Your task to perform on an android device: change the clock style Image 0: 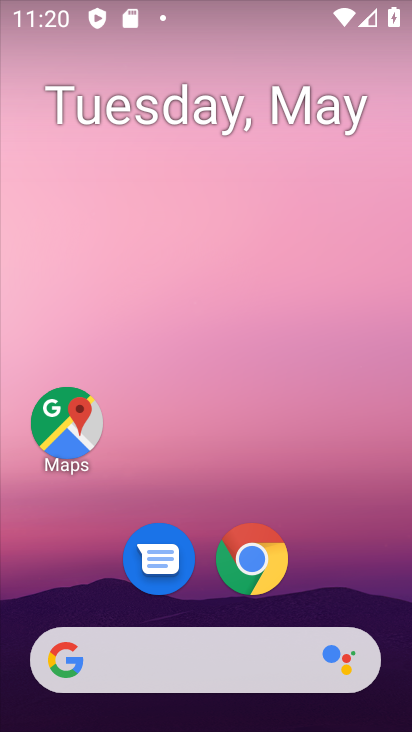
Step 0: drag from (75, 597) to (202, 192)
Your task to perform on an android device: change the clock style Image 1: 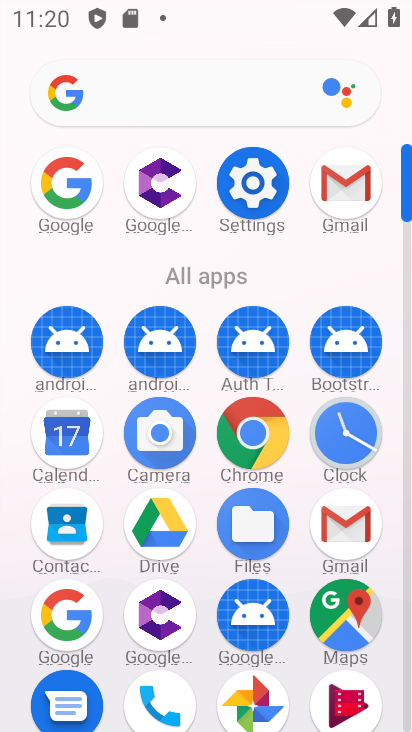
Step 1: click (367, 447)
Your task to perform on an android device: change the clock style Image 2: 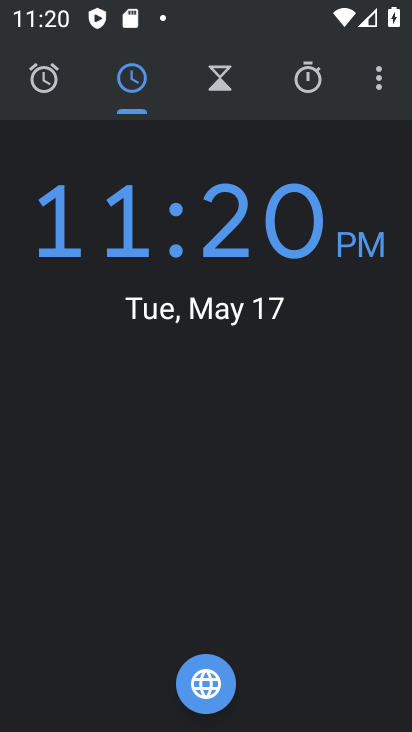
Step 2: click (381, 80)
Your task to perform on an android device: change the clock style Image 3: 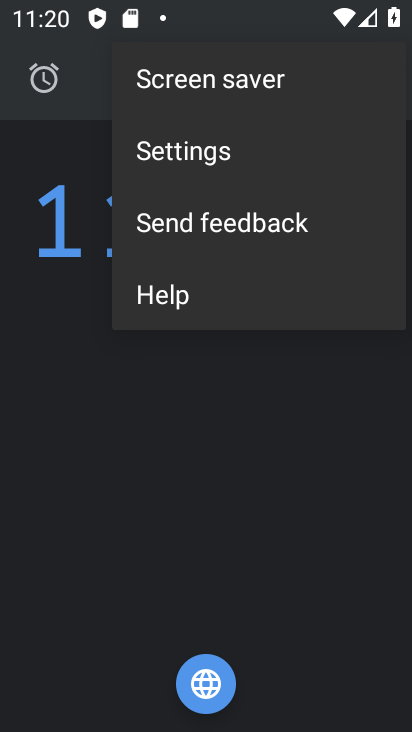
Step 3: click (342, 143)
Your task to perform on an android device: change the clock style Image 4: 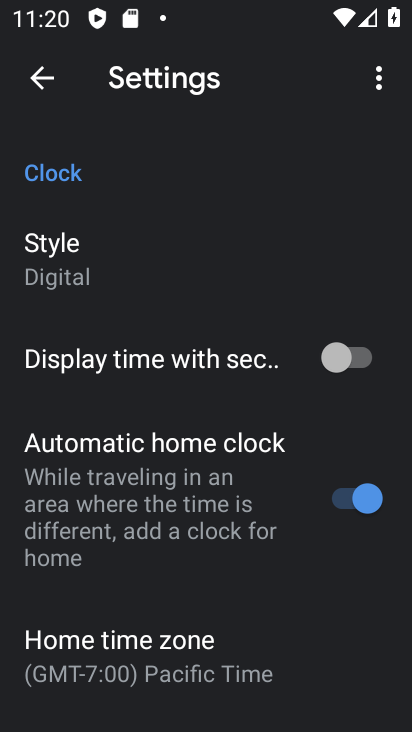
Step 4: click (308, 258)
Your task to perform on an android device: change the clock style Image 5: 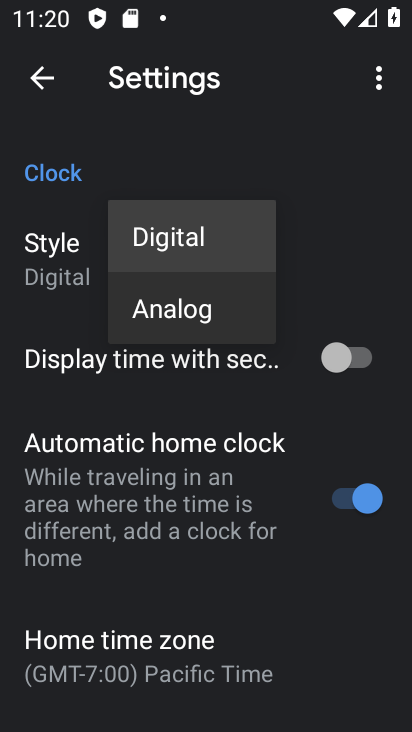
Step 5: click (204, 305)
Your task to perform on an android device: change the clock style Image 6: 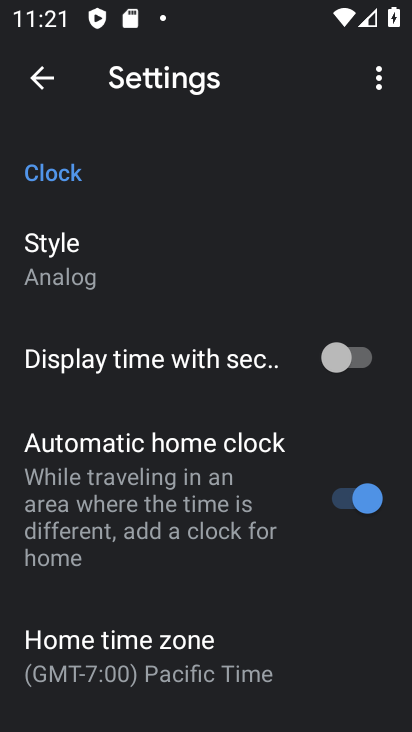
Step 6: task complete